Your task to perform on an android device: Open maps Image 0: 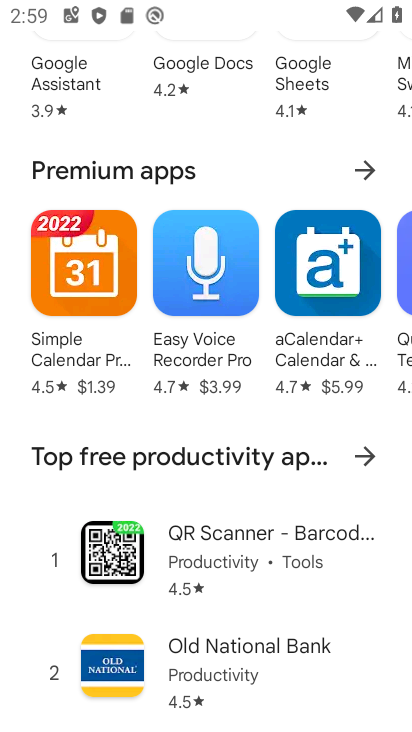
Step 0: press home button
Your task to perform on an android device: Open maps Image 1: 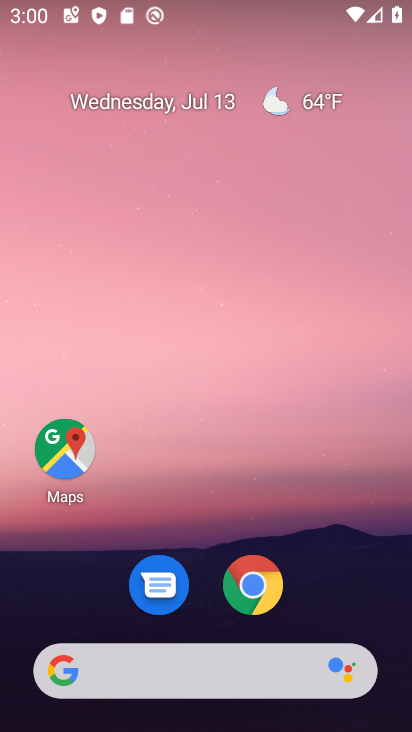
Step 1: click (63, 458)
Your task to perform on an android device: Open maps Image 2: 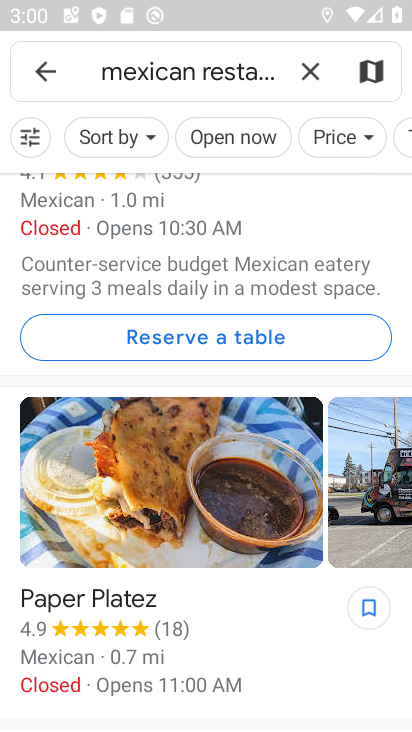
Step 2: click (51, 71)
Your task to perform on an android device: Open maps Image 3: 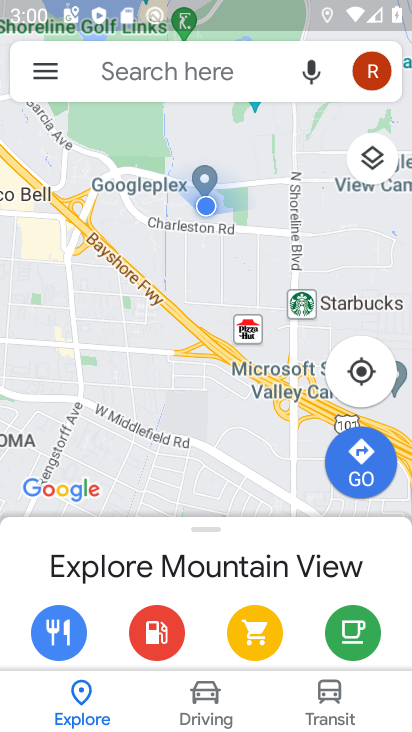
Step 3: task complete